Your task to perform on an android device: Go to settings Image 0: 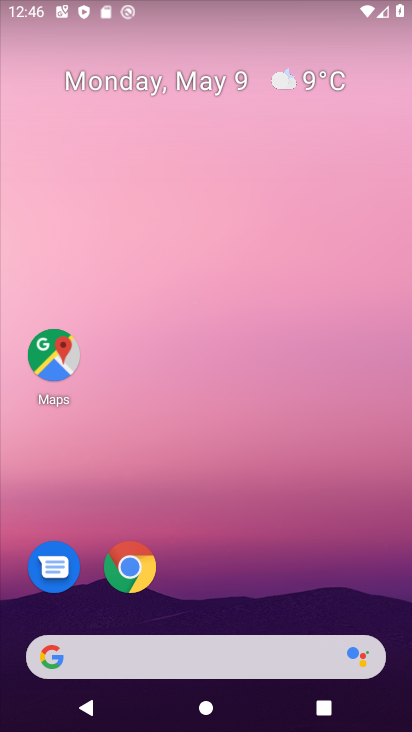
Step 0: drag from (286, 631) to (250, 318)
Your task to perform on an android device: Go to settings Image 1: 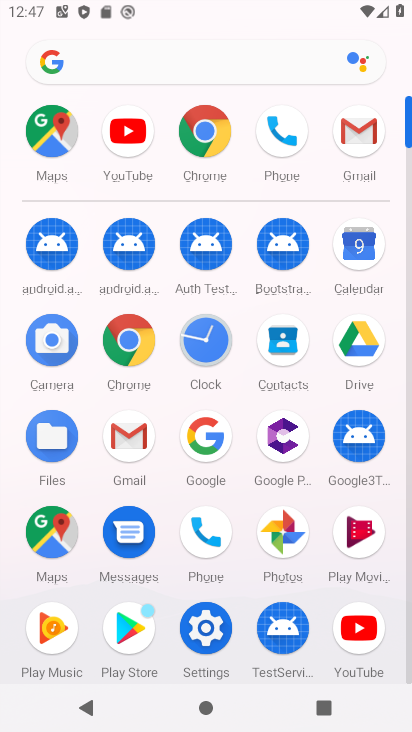
Step 1: click (210, 622)
Your task to perform on an android device: Go to settings Image 2: 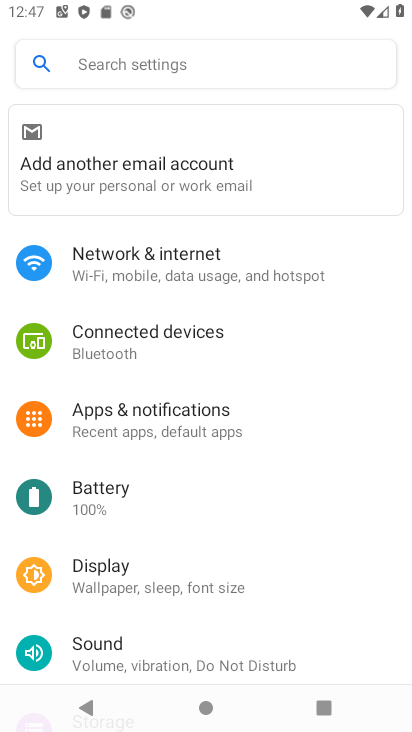
Step 2: task complete